Your task to perform on an android device: Show me the alarms in the clock app Image 0: 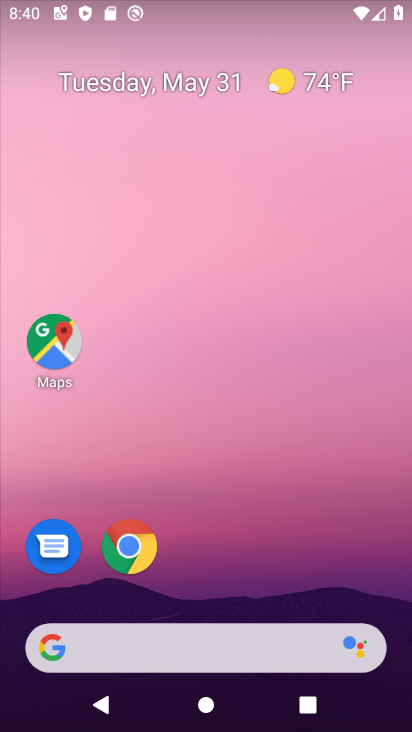
Step 0: drag from (234, 592) to (243, 118)
Your task to perform on an android device: Show me the alarms in the clock app Image 1: 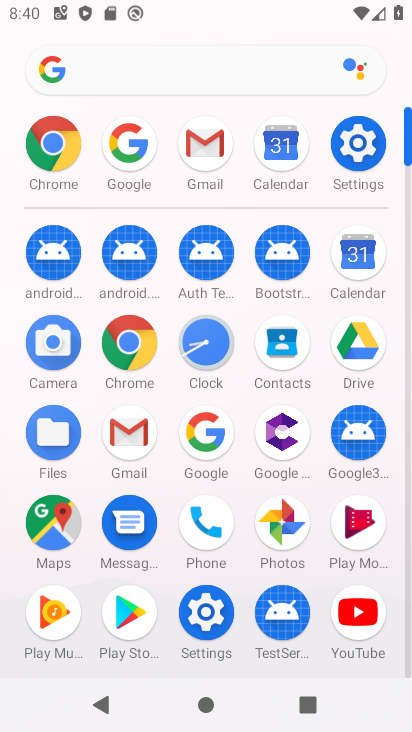
Step 1: click (206, 351)
Your task to perform on an android device: Show me the alarms in the clock app Image 2: 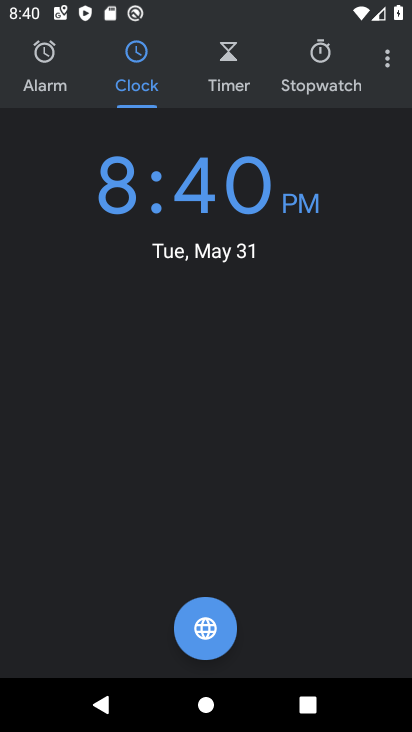
Step 2: click (62, 71)
Your task to perform on an android device: Show me the alarms in the clock app Image 3: 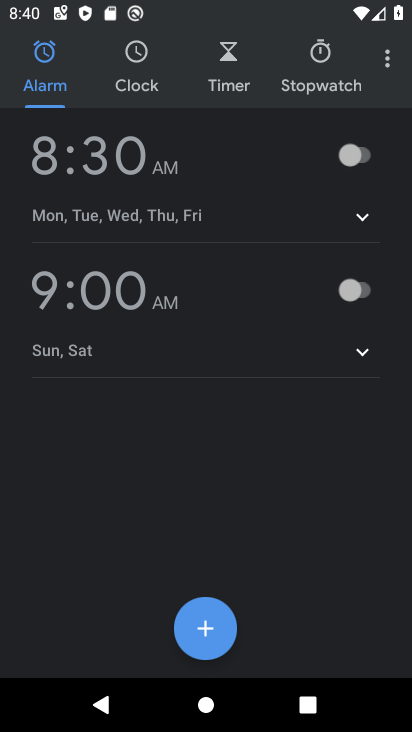
Step 3: task complete